Your task to perform on an android device: Go to display settings Image 0: 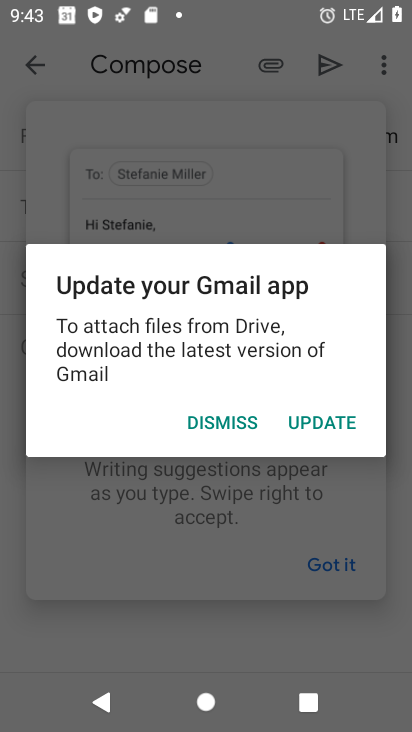
Step 0: press home button
Your task to perform on an android device: Go to display settings Image 1: 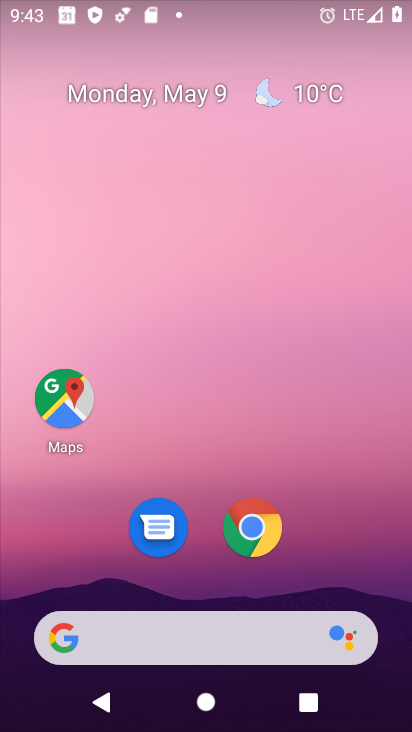
Step 1: drag from (383, 622) to (312, 70)
Your task to perform on an android device: Go to display settings Image 2: 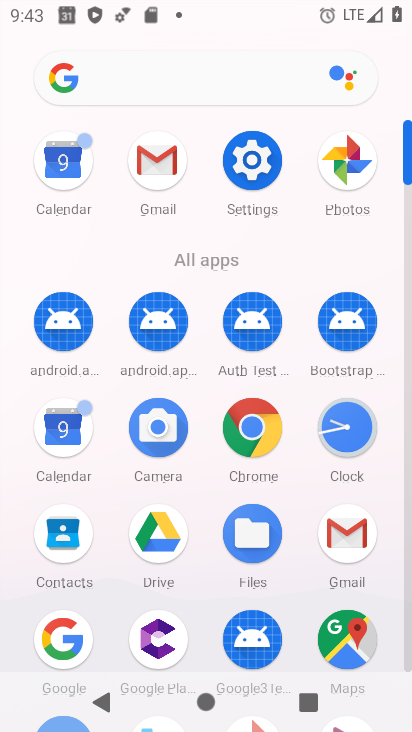
Step 2: click (408, 648)
Your task to perform on an android device: Go to display settings Image 3: 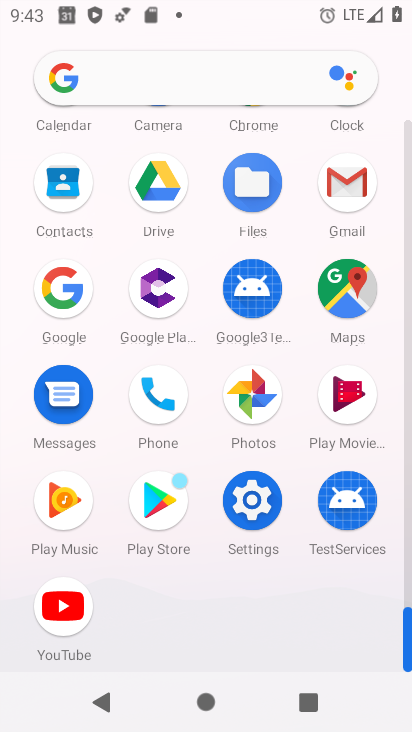
Step 3: click (252, 500)
Your task to perform on an android device: Go to display settings Image 4: 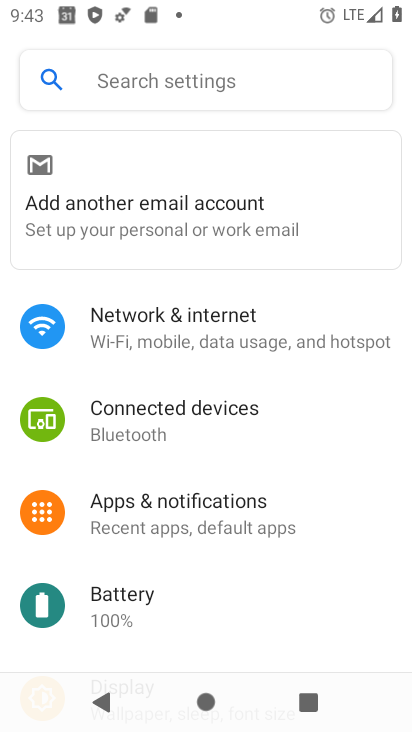
Step 4: drag from (324, 568) to (314, 200)
Your task to perform on an android device: Go to display settings Image 5: 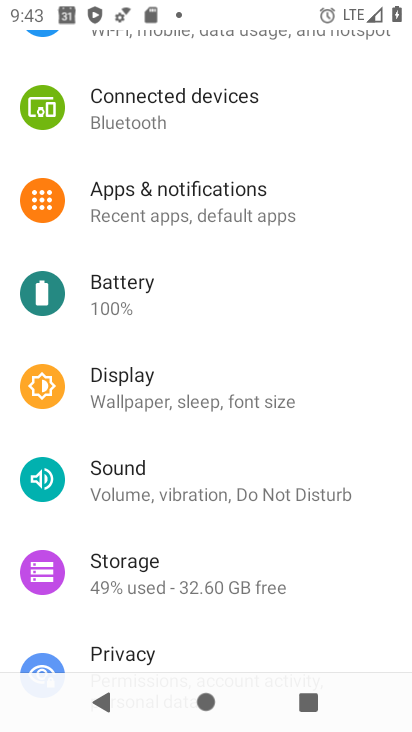
Step 5: click (109, 375)
Your task to perform on an android device: Go to display settings Image 6: 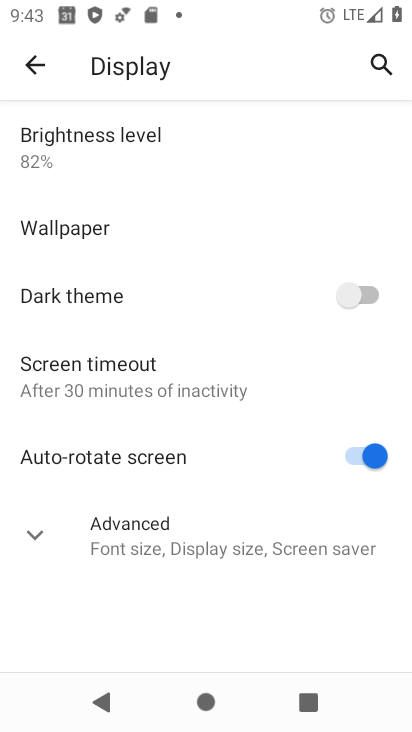
Step 6: click (34, 537)
Your task to perform on an android device: Go to display settings Image 7: 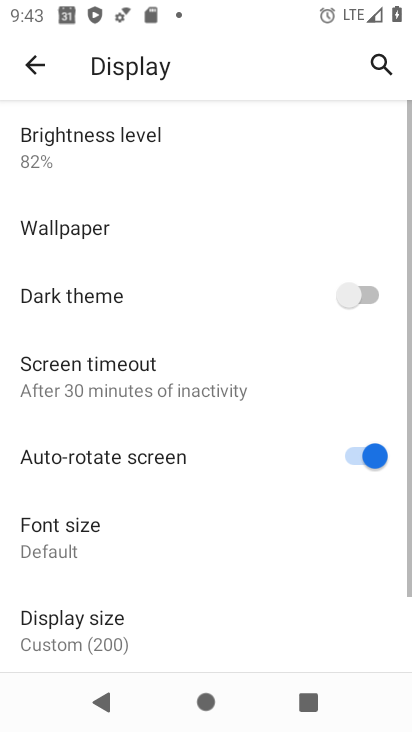
Step 7: task complete